Your task to perform on an android device: check android version Image 0: 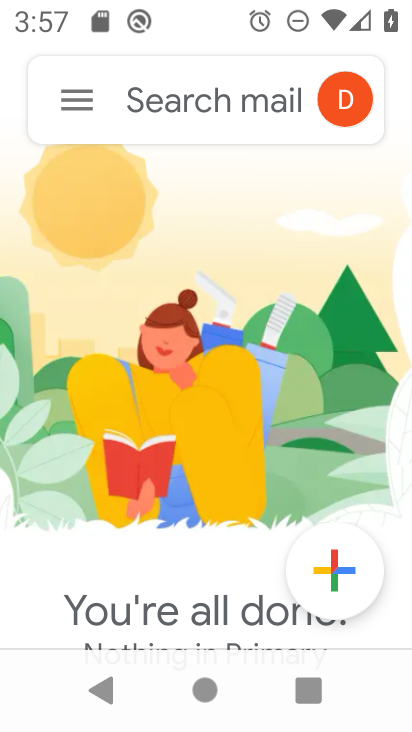
Step 0: press home button
Your task to perform on an android device: check android version Image 1: 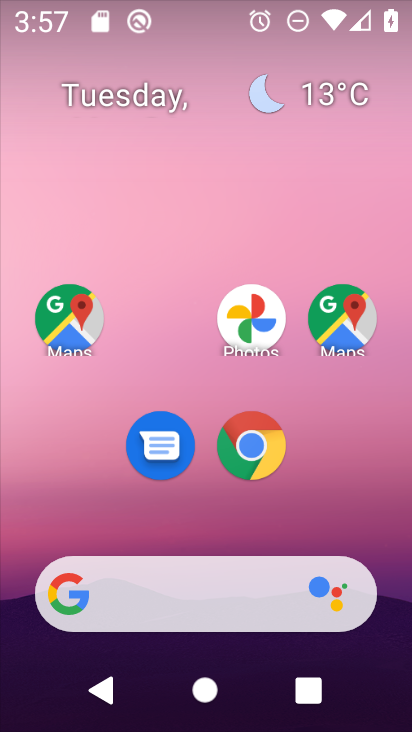
Step 1: drag from (386, 524) to (385, 227)
Your task to perform on an android device: check android version Image 2: 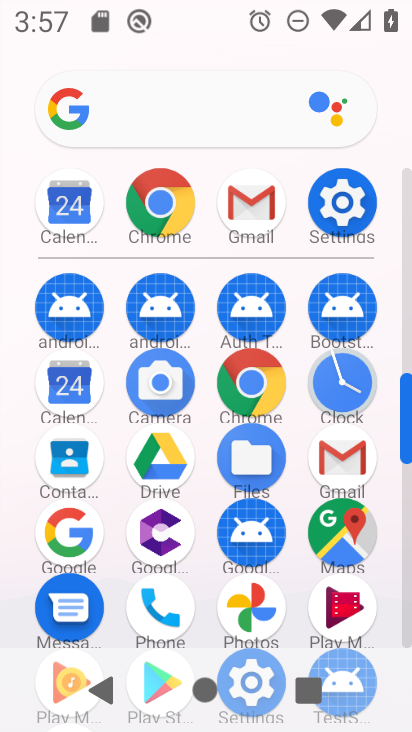
Step 2: click (359, 228)
Your task to perform on an android device: check android version Image 3: 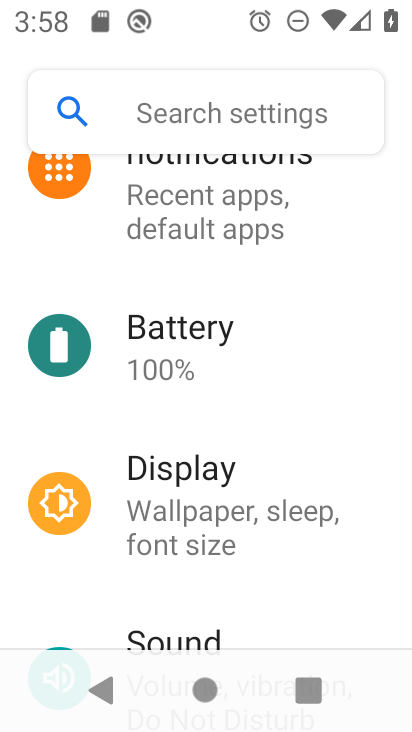
Step 3: drag from (362, 221) to (357, 266)
Your task to perform on an android device: check android version Image 4: 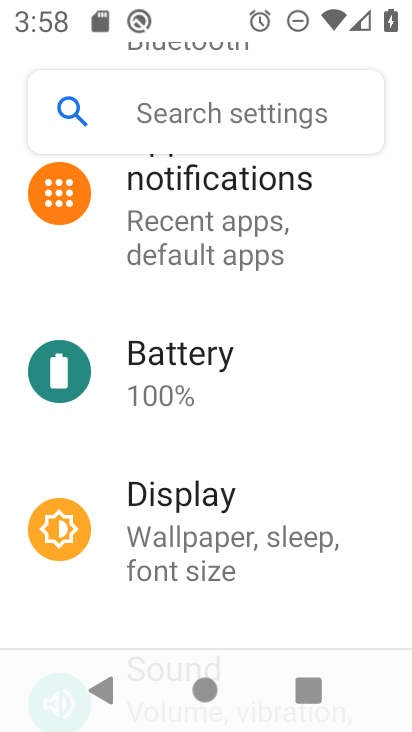
Step 4: drag from (354, 196) to (341, 294)
Your task to perform on an android device: check android version Image 5: 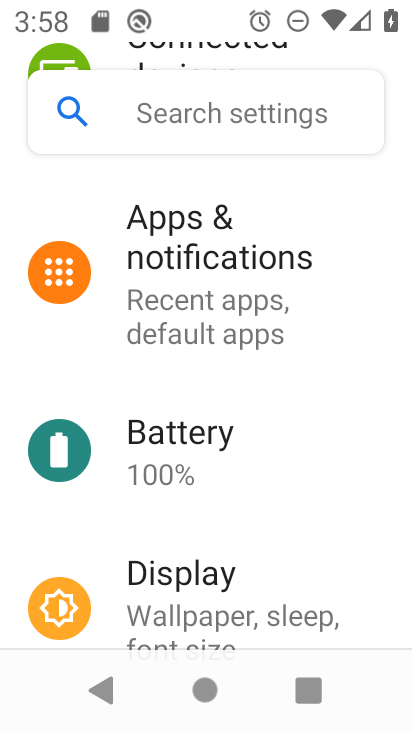
Step 5: drag from (347, 197) to (363, 310)
Your task to perform on an android device: check android version Image 6: 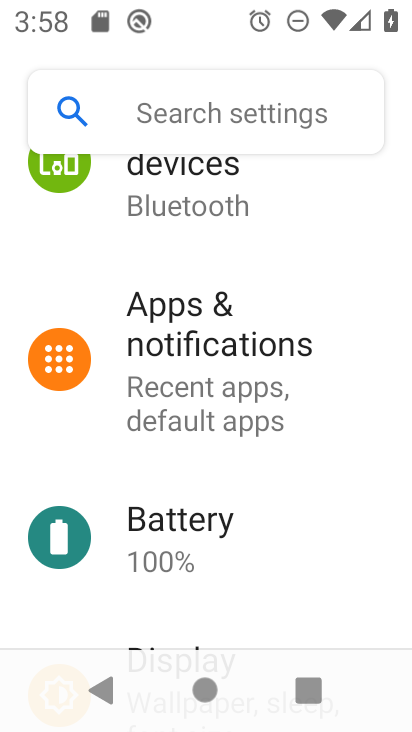
Step 6: drag from (358, 215) to (370, 314)
Your task to perform on an android device: check android version Image 7: 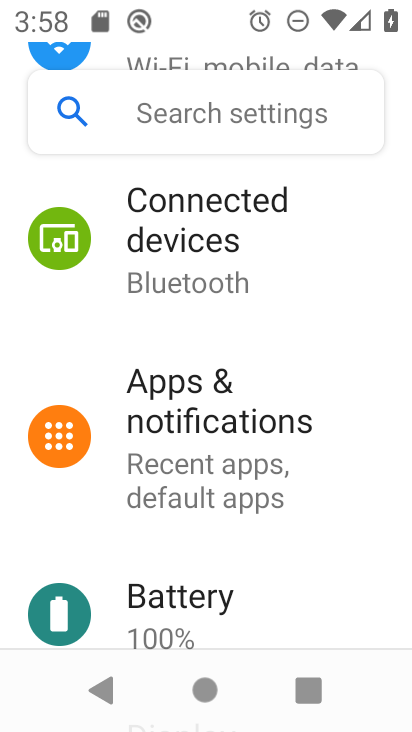
Step 7: drag from (359, 362) to (357, 311)
Your task to perform on an android device: check android version Image 8: 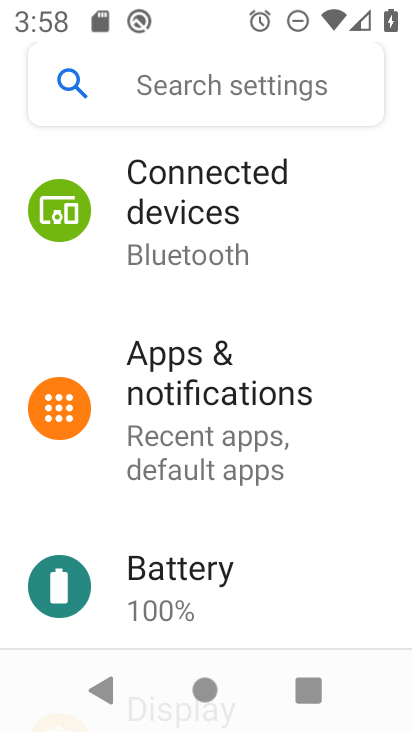
Step 8: drag from (367, 424) to (358, 322)
Your task to perform on an android device: check android version Image 9: 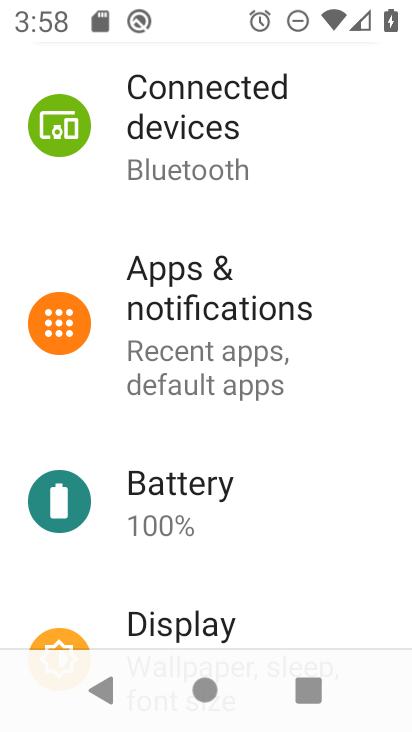
Step 9: drag from (366, 442) to (350, 321)
Your task to perform on an android device: check android version Image 10: 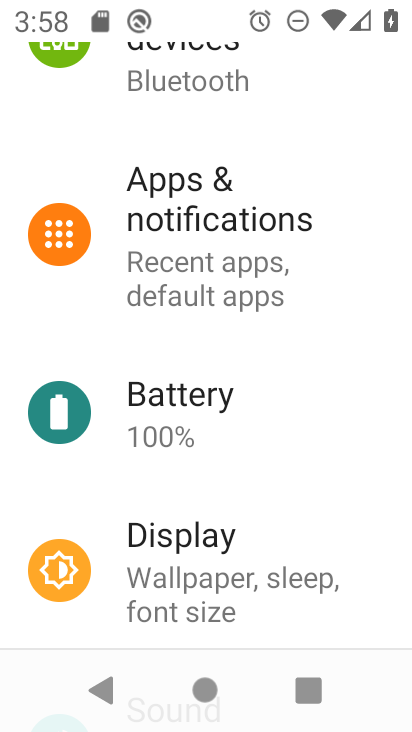
Step 10: drag from (353, 445) to (369, 360)
Your task to perform on an android device: check android version Image 11: 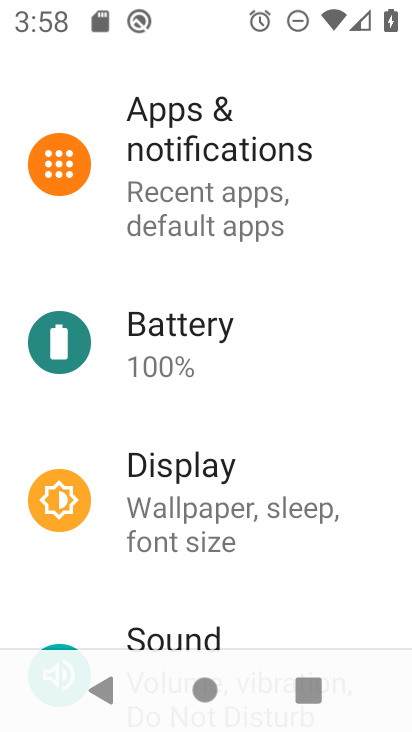
Step 11: drag from (390, 470) to (384, 381)
Your task to perform on an android device: check android version Image 12: 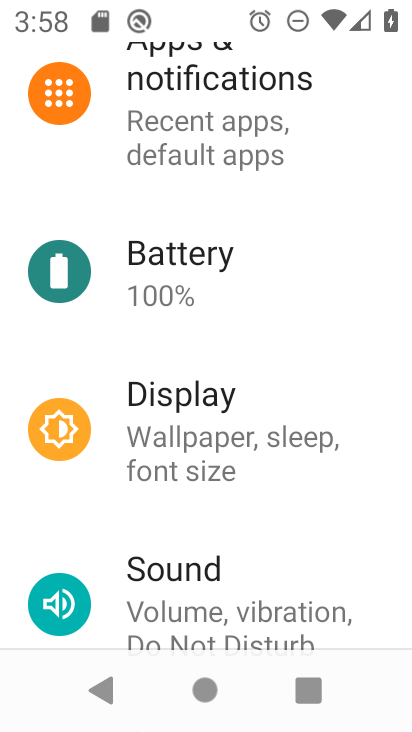
Step 12: drag from (369, 500) to (402, 392)
Your task to perform on an android device: check android version Image 13: 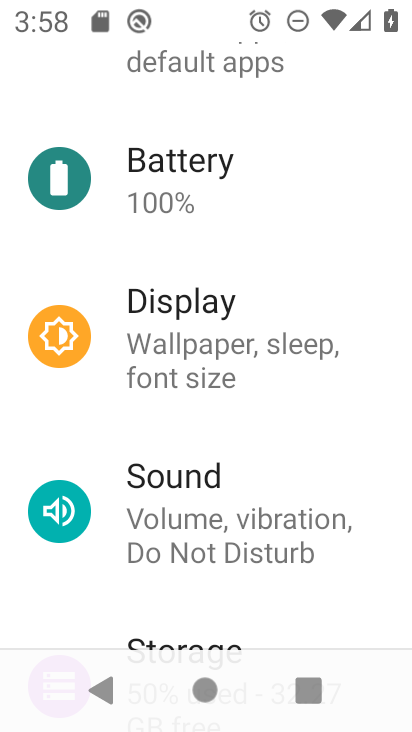
Step 13: drag from (382, 537) to (406, 419)
Your task to perform on an android device: check android version Image 14: 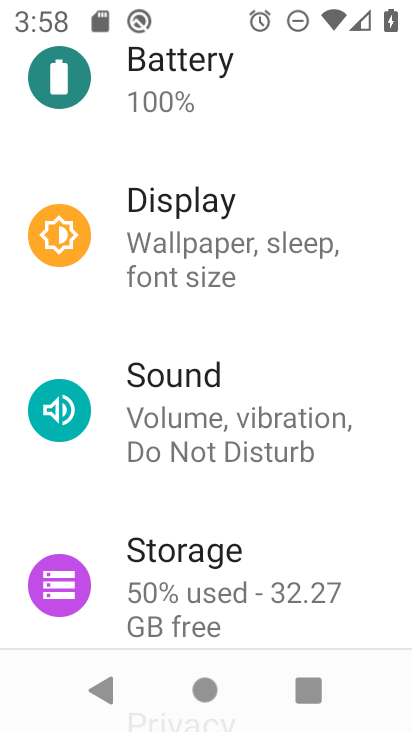
Step 14: drag from (373, 526) to (386, 440)
Your task to perform on an android device: check android version Image 15: 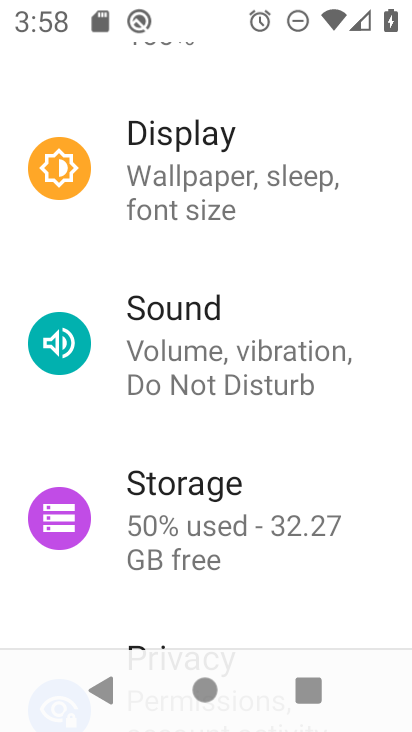
Step 15: drag from (385, 542) to (373, 461)
Your task to perform on an android device: check android version Image 16: 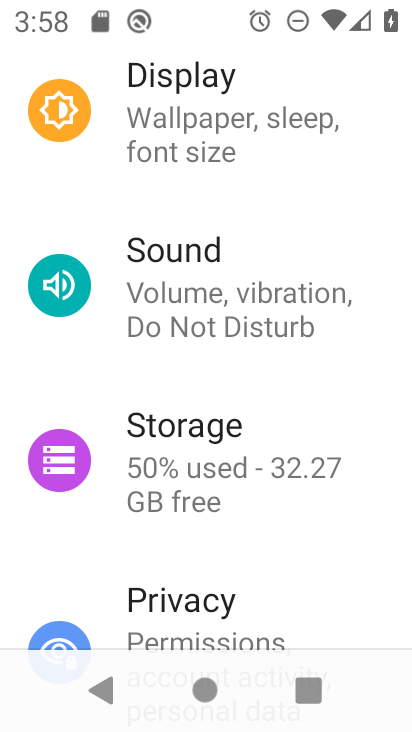
Step 16: drag from (384, 555) to (376, 474)
Your task to perform on an android device: check android version Image 17: 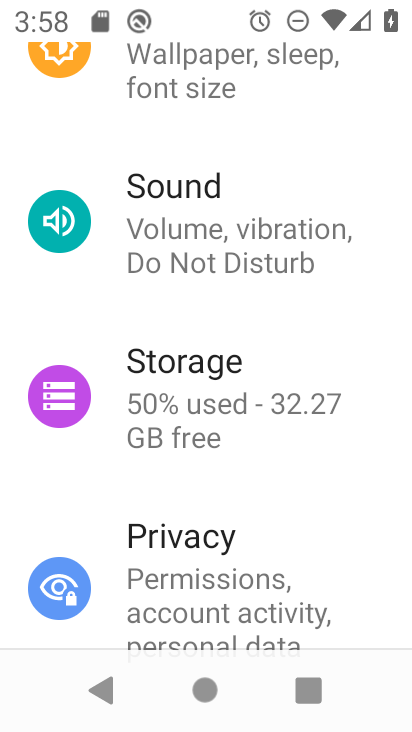
Step 17: drag from (378, 550) to (376, 460)
Your task to perform on an android device: check android version Image 18: 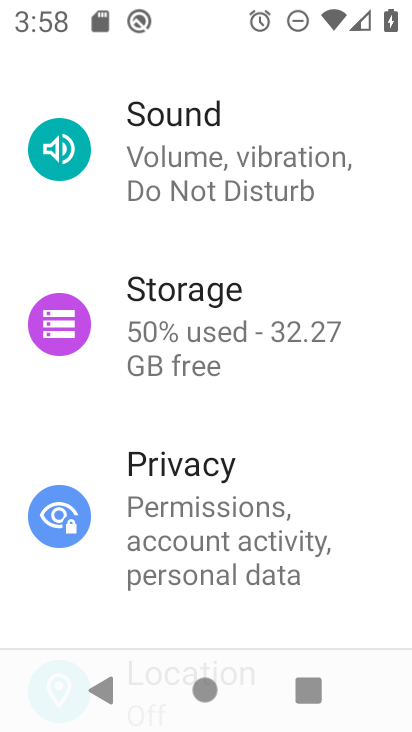
Step 18: drag from (362, 546) to (349, 492)
Your task to perform on an android device: check android version Image 19: 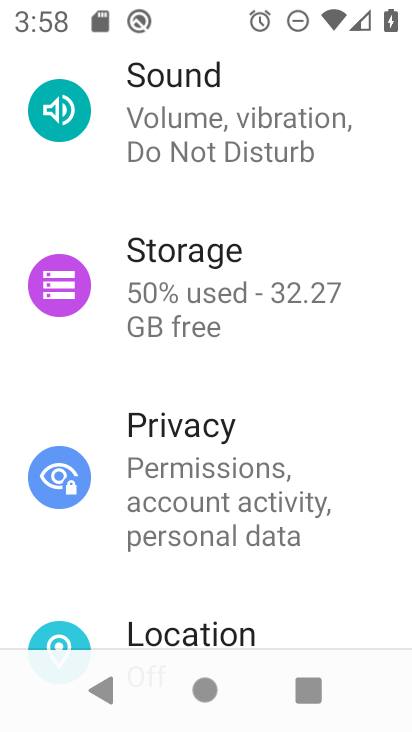
Step 19: drag from (362, 577) to (364, 460)
Your task to perform on an android device: check android version Image 20: 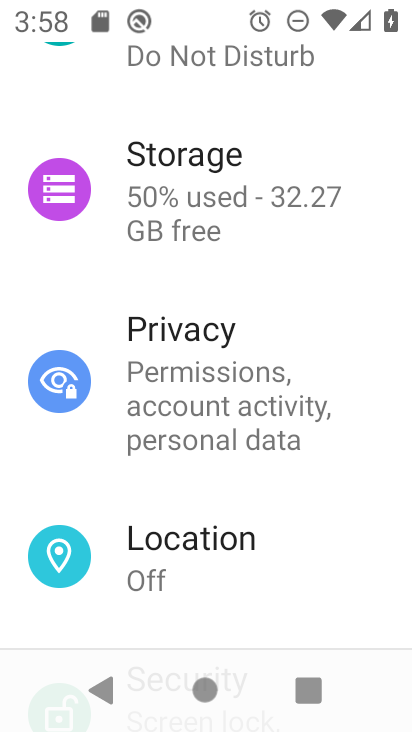
Step 20: drag from (362, 552) to (381, 436)
Your task to perform on an android device: check android version Image 21: 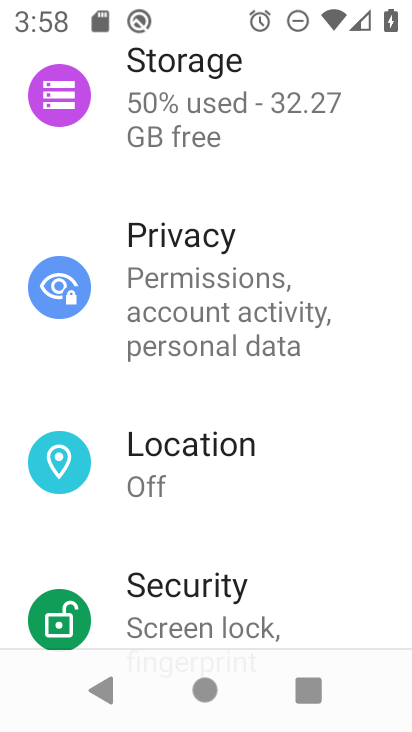
Step 21: drag from (366, 588) to (360, 480)
Your task to perform on an android device: check android version Image 22: 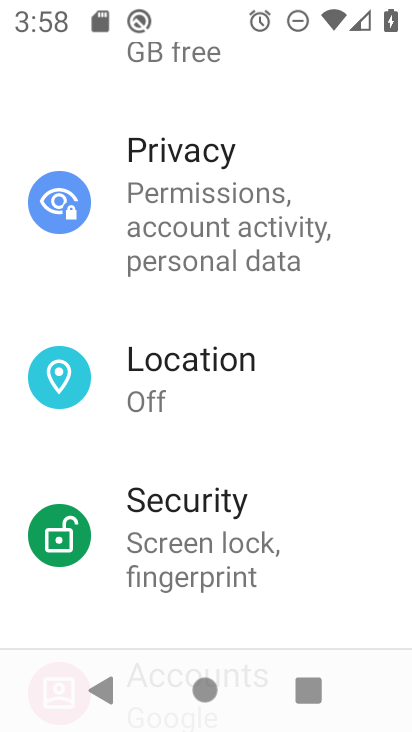
Step 22: drag from (387, 613) to (378, 498)
Your task to perform on an android device: check android version Image 23: 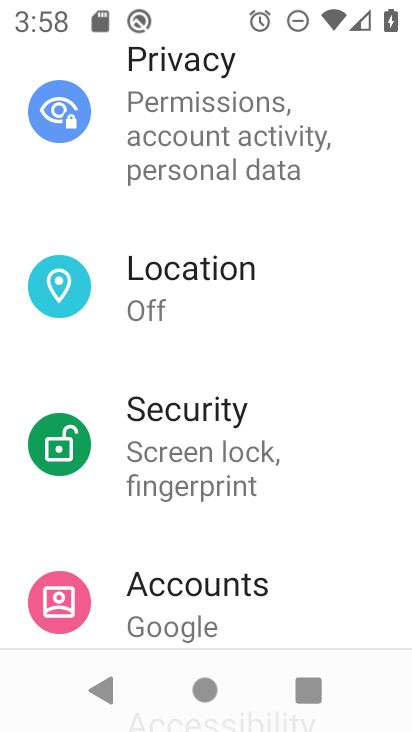
Step 23: drag from (369, 611) to (354, 499)
Your task to perform on an android device: check android version Image 24: 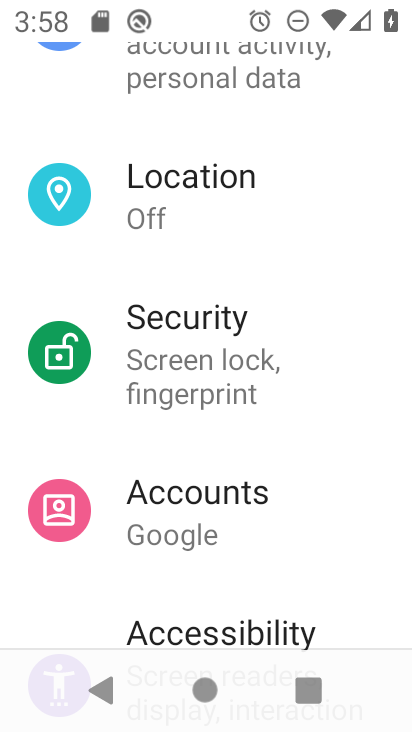
Step 24: drag from (359, 568) to (364, 468)
Your task to perform on an android device: check android version Image 25: 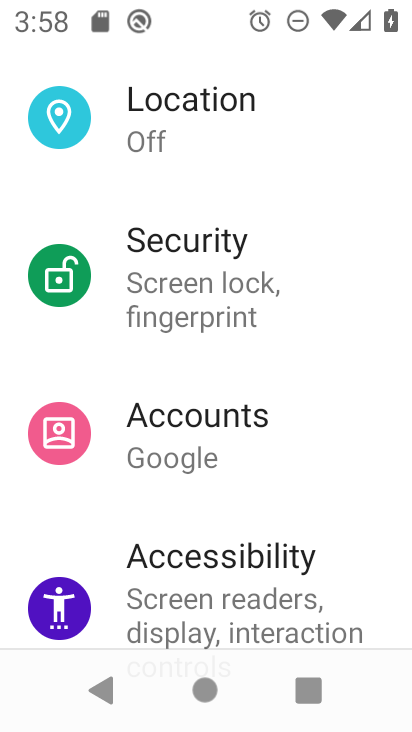
Step 25: drag from (375, 591) to (349, 489)
Your task to perform on an android device: check android version Image 26: 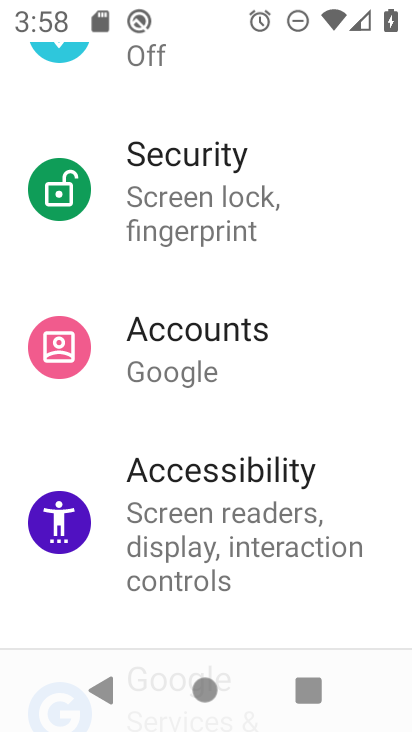
Step 26: drag from (347, 600) to (367, 499)
Your task to perform on an android device: check android version Image 27: 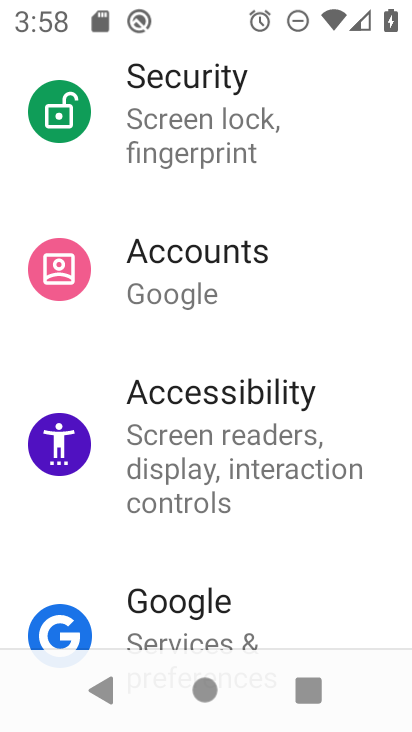
Step 27: drag from (363, 598) to (367, 481)
Your task to perform on an android device: check android version Image 28: 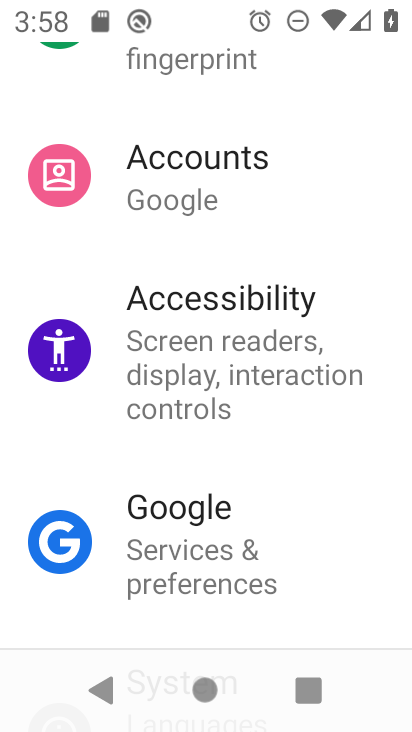
Step 28: drag from (356, 585) to (382, 448)
Your task to perform on an android device: check android version Image 29: 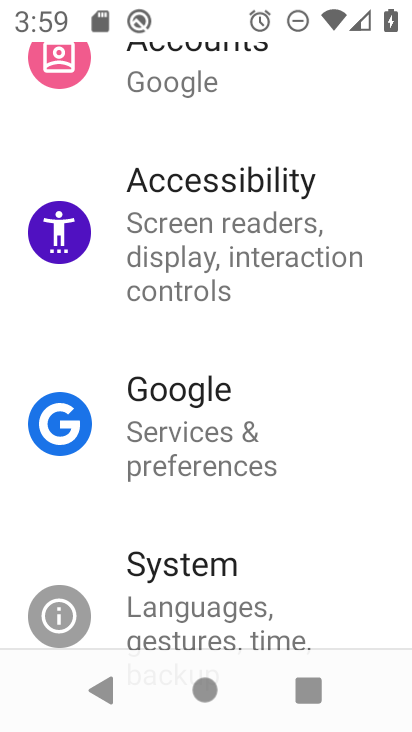
Step 29: click (313, 600)
Your task to perform on an android device: check android version Image 30: 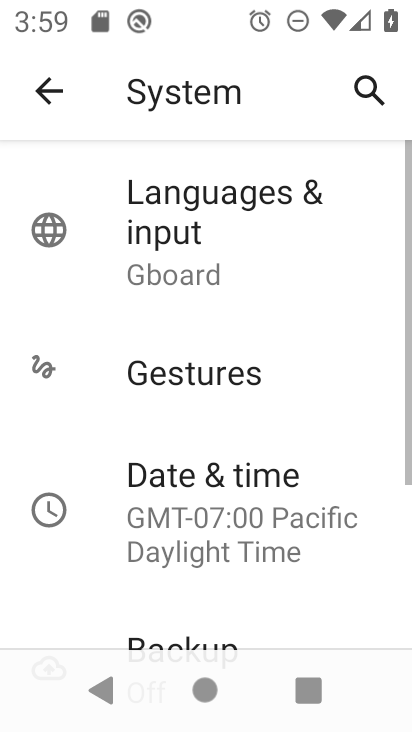
Step 30: drag from (313, 600) to (316, 518)
Your task to perform on an android device: check android version Image 31: 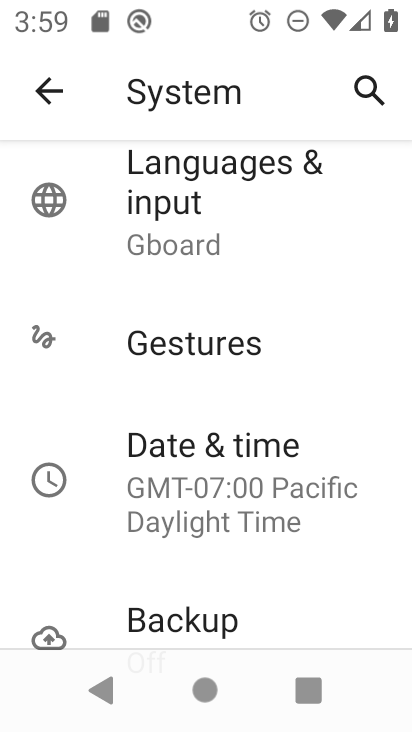
Step 31: drag from (359, 601) to (371, 500)
Your task to perform on an android device: check android version Image 32: 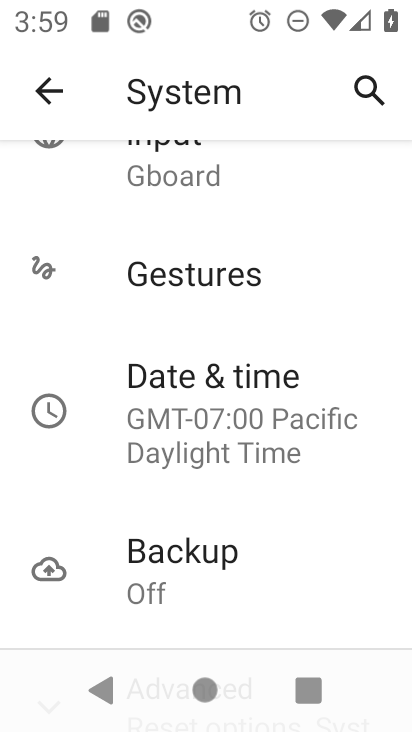
Step 32: drag from (378, 584) to (359, 513)
Your task to perform on an android device: check android version Image 33: 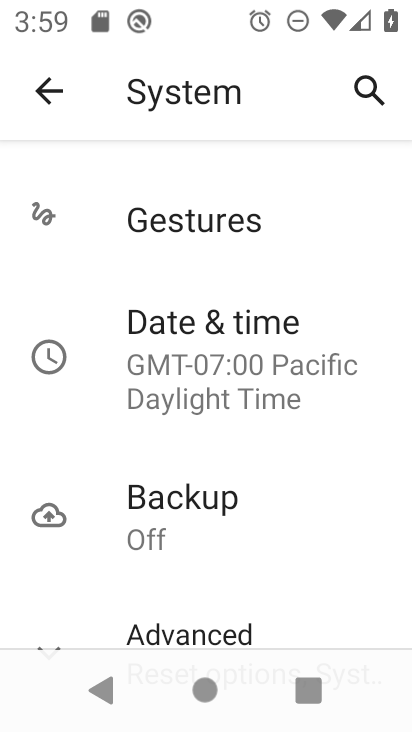
Step 33: drag from (353, 591) to (330, 524)
Your task to perform on an android device: check android version Image 34: 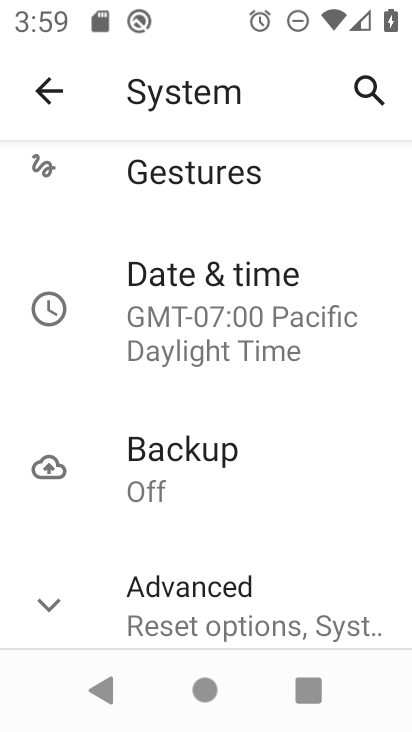
Step 34: drag from (335, 585) to (334, 518)
Your task to perform on an android device: check android version Image 35: 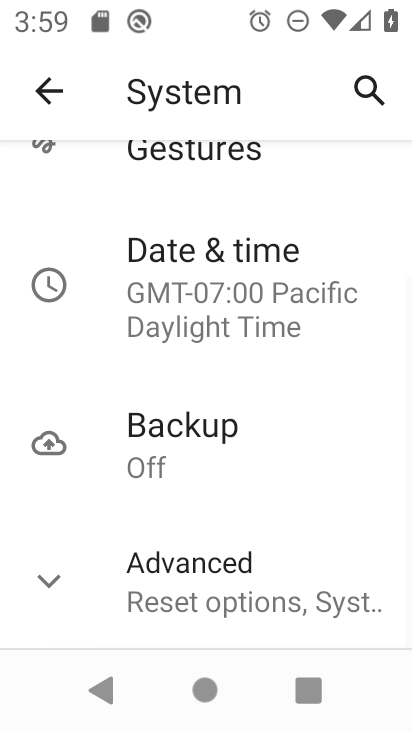
Step 35: click (333, 592)
Your task to perform on an android device: check android version Image 36: 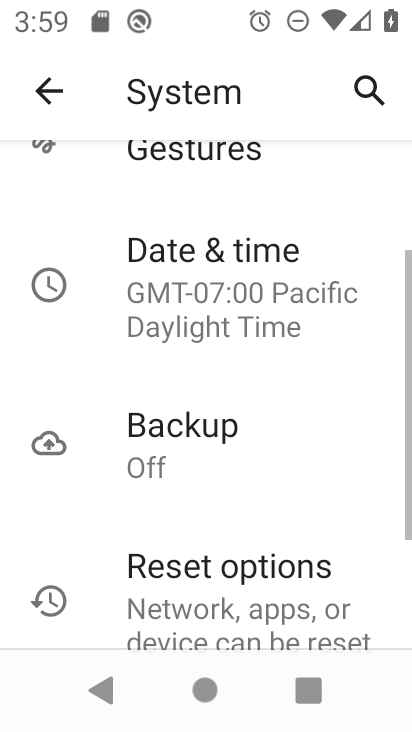
Step 36: drag from (333, 592) to (346, 529)
Your task to perform on an android device: check android version Image 37: 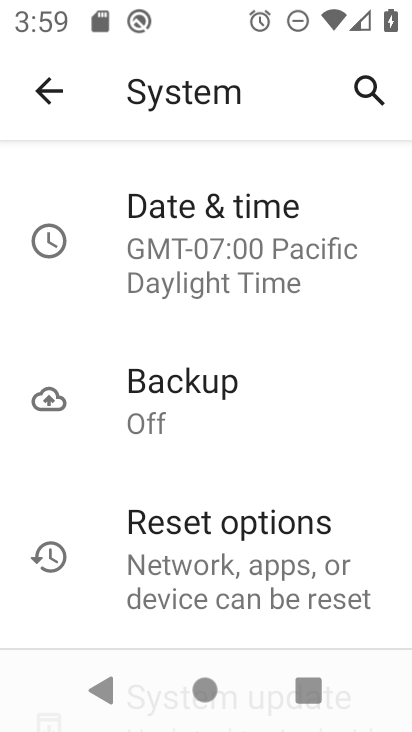
Step 37: drag from (363, 598) to (359, 531)
Your task to perform on an android device: check android version Image 38: 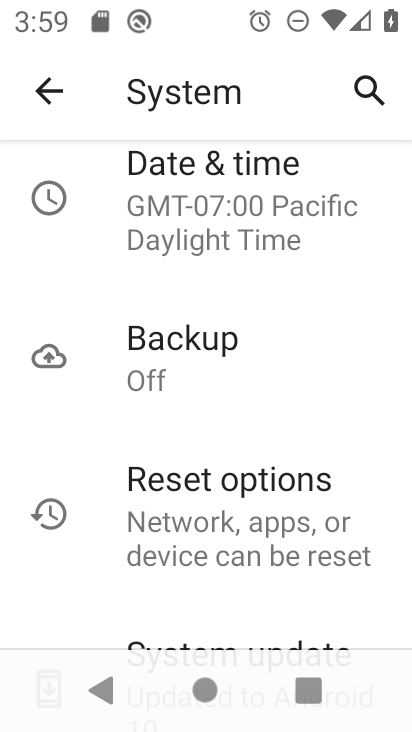
Step 38: drag from (376, 603) to (373, 529)
Your task to perform on an android device: check android version Image 39: 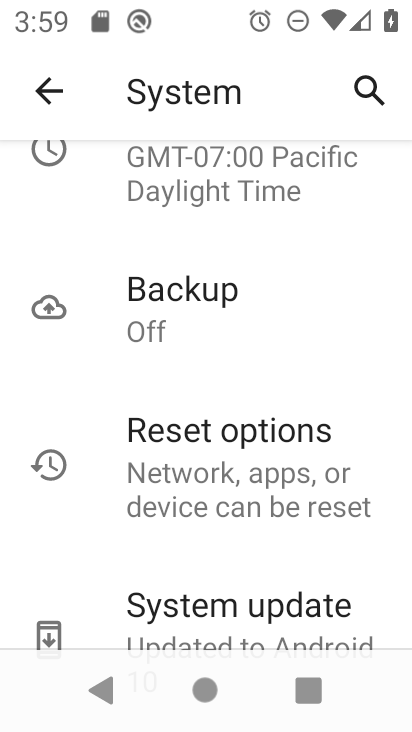
Step 39: click (348, 628)
Your task to perform on an android device: check android version Image 40: 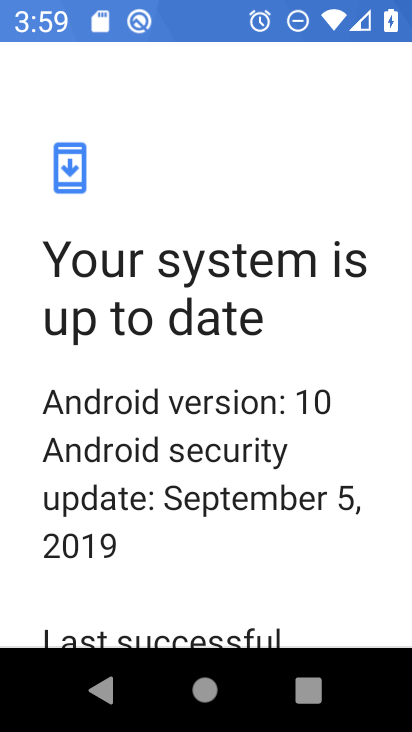
Step 40: task complete